Your task to perform on an android device: open chrome privacy settings Image 0: 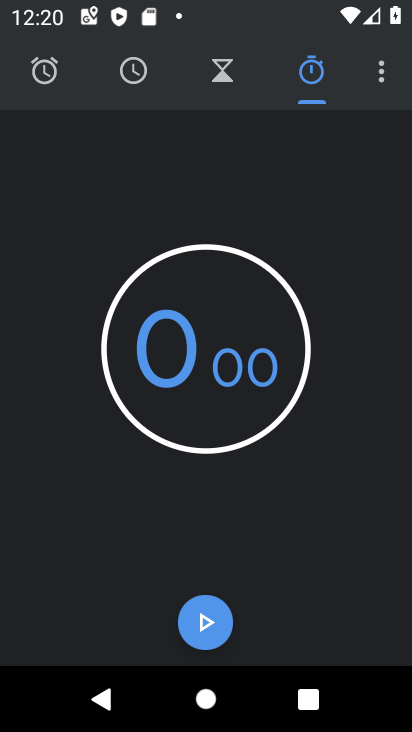
Step 0: press home button
Your task to perform on an android device: open chrome privacy settings Image 1: 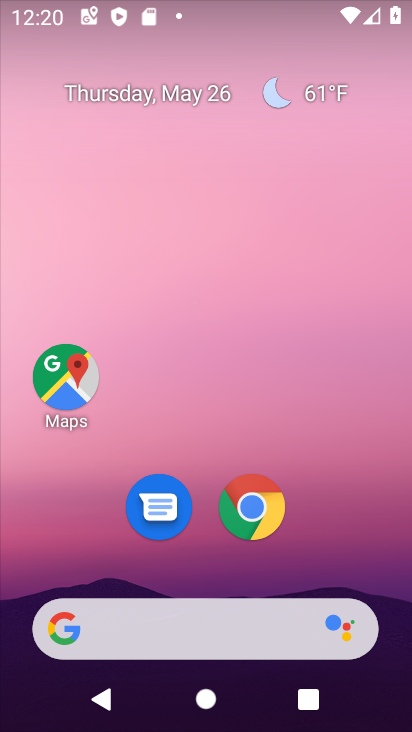
Step 1: click (272, 499)
Your task to perform on an android device: open chrome privacy settings Image 2: 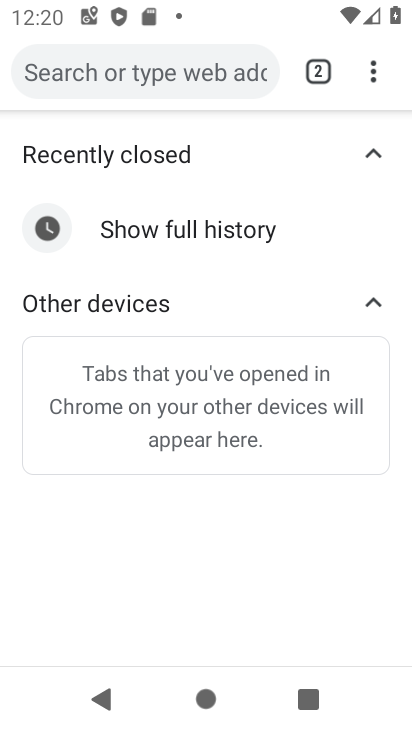
Step 2: click (373, 54)
Your task to perform on an android device: open chrome privacy settings Image 3: 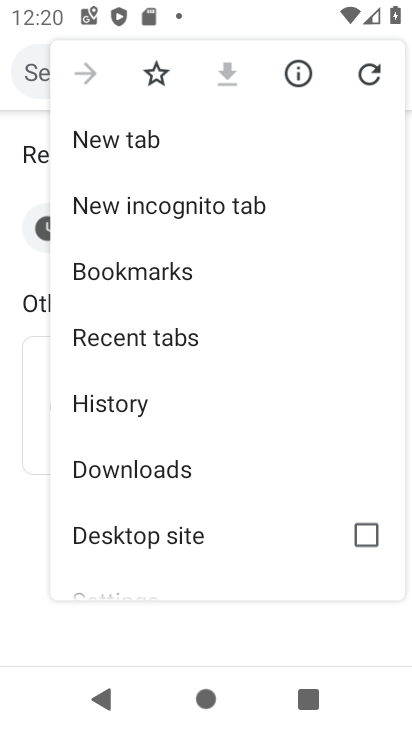
Step 3: click (124, 581)
Your task to perform on an android device: open chrome privacy settings Image 4: 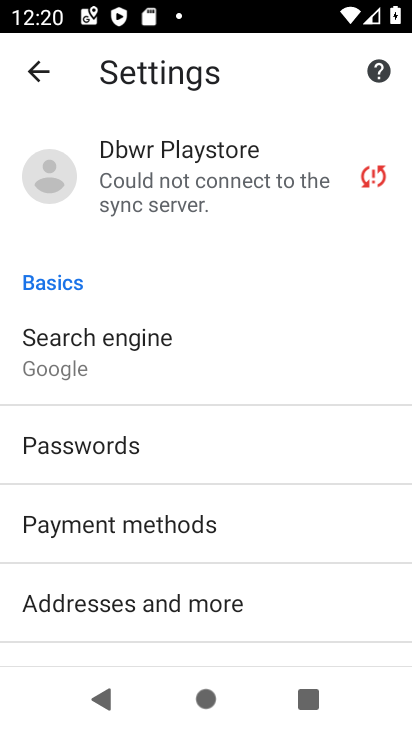
Step 4: drag from (194, 569) to (196, 369)
Your task to perform on an android device: open chrome privacy settings Image 5: 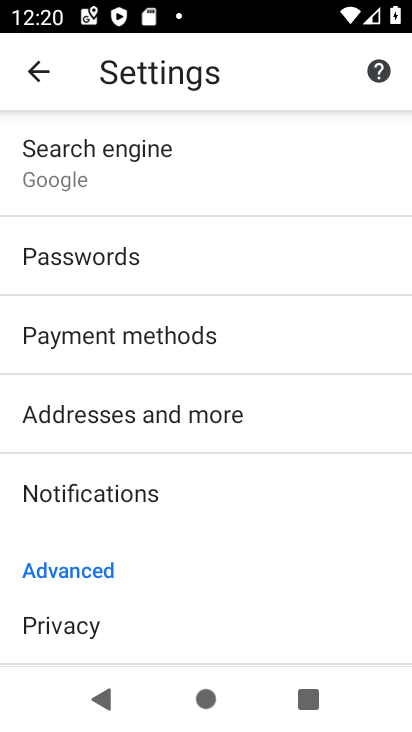
Step 5: click (156, 611)
Your task to perform on an android device: open chrome privacy settings Image 6: 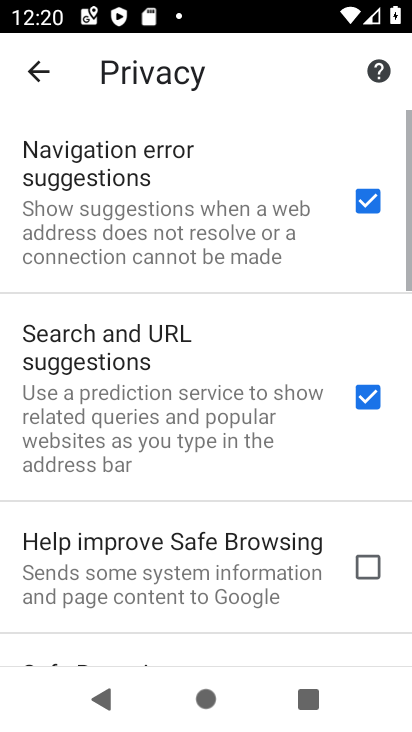
Step 6: task complete